Your task to perform on an android device: Set the phone to "Do not disturb". Image 0: 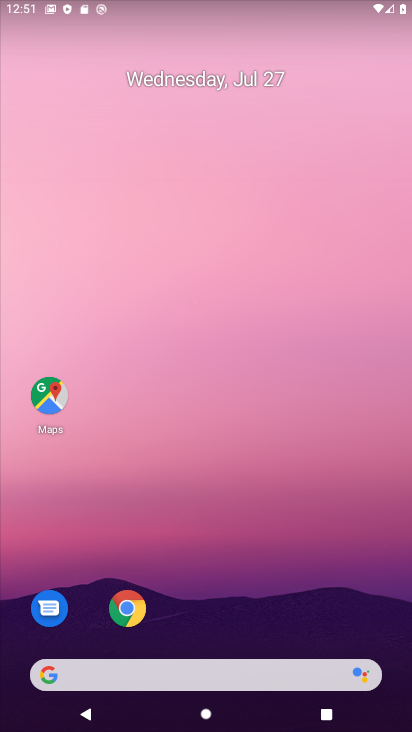
Step 0: drag from (222, 637) to (224, 9)
Your task to perform on an android device: Set the phone to "Do not disturb". Image 1: 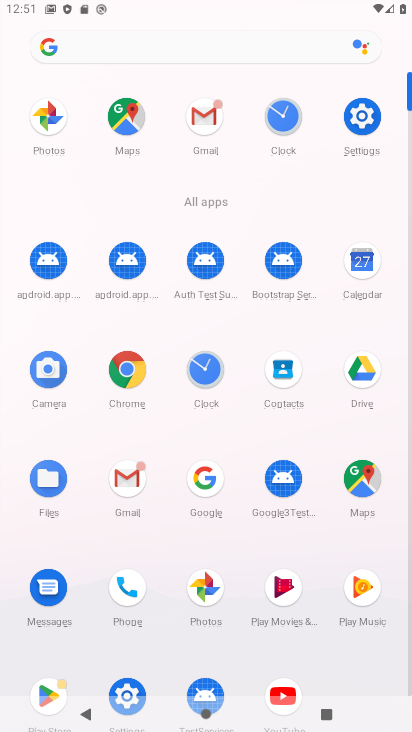
Step 1: click (125, 687)
Your task to perform on an android device: Set the phone to "Do not disturb". Image 2: 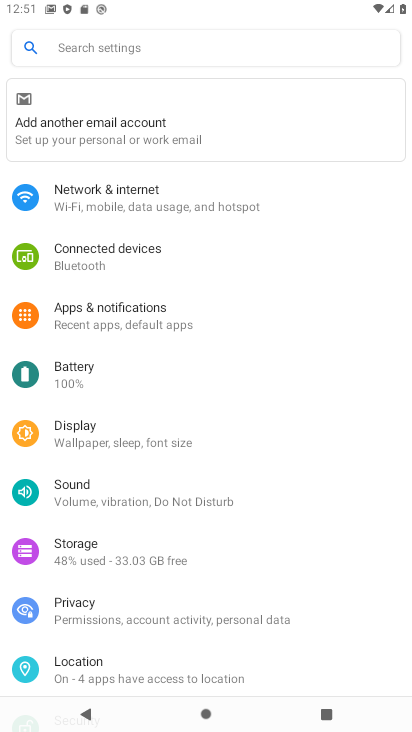
Step 2: click (94, 491)
Your task to perform on an android device: Set the phone to "Do not disturb". Image 3: 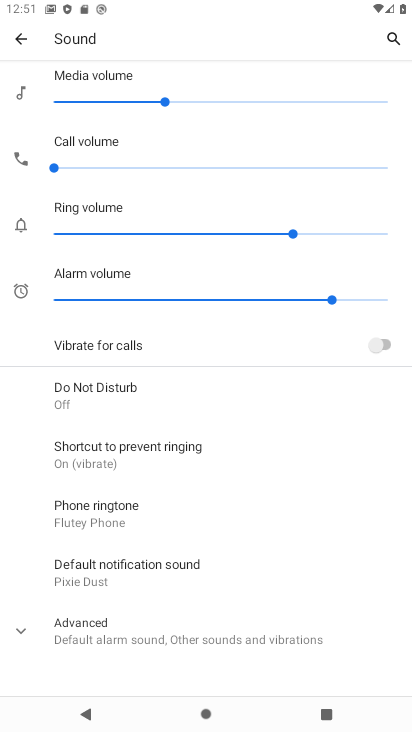
Step 3: click (101, 387)
Your task to perform on an android device: Set the phone to "Do not disturb". Image 4: 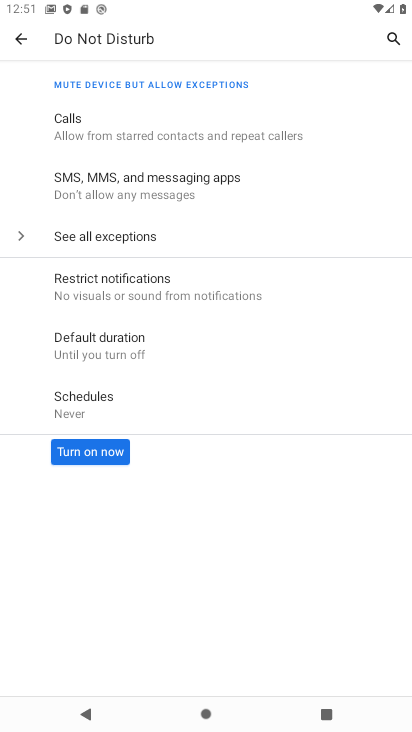
Step 4: click (97, 453)
Your task to perform on an android device: Set the phone to "Do not disturb". Image 5: 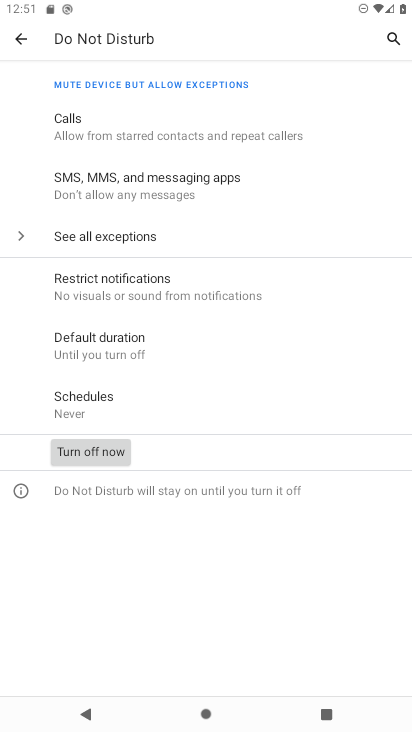
Step 5: task complete